Your task to perform on an android device: Clear the shopping cart on ebay.com. Image 0: 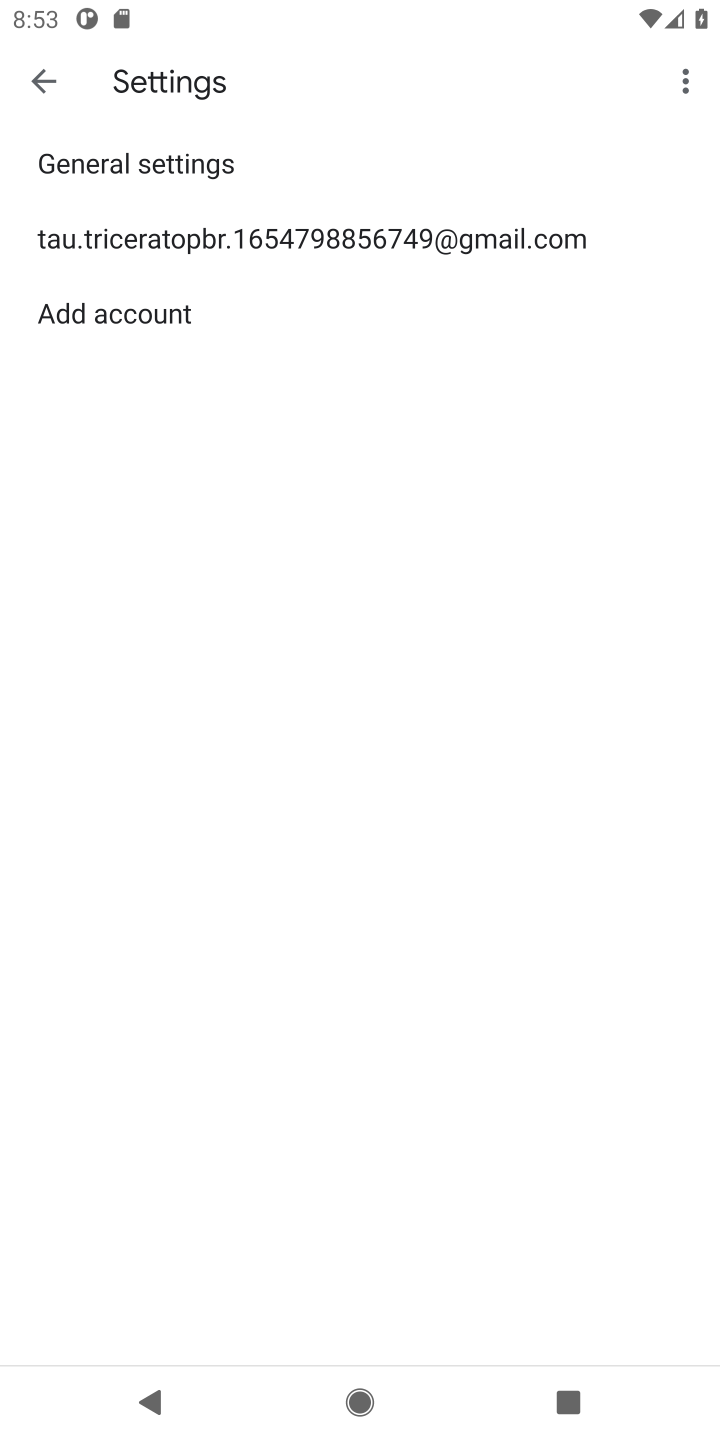
Step 0: press home button
Your task to perform on an android device: Clear the shopping cart on ebay.com. Image 1: 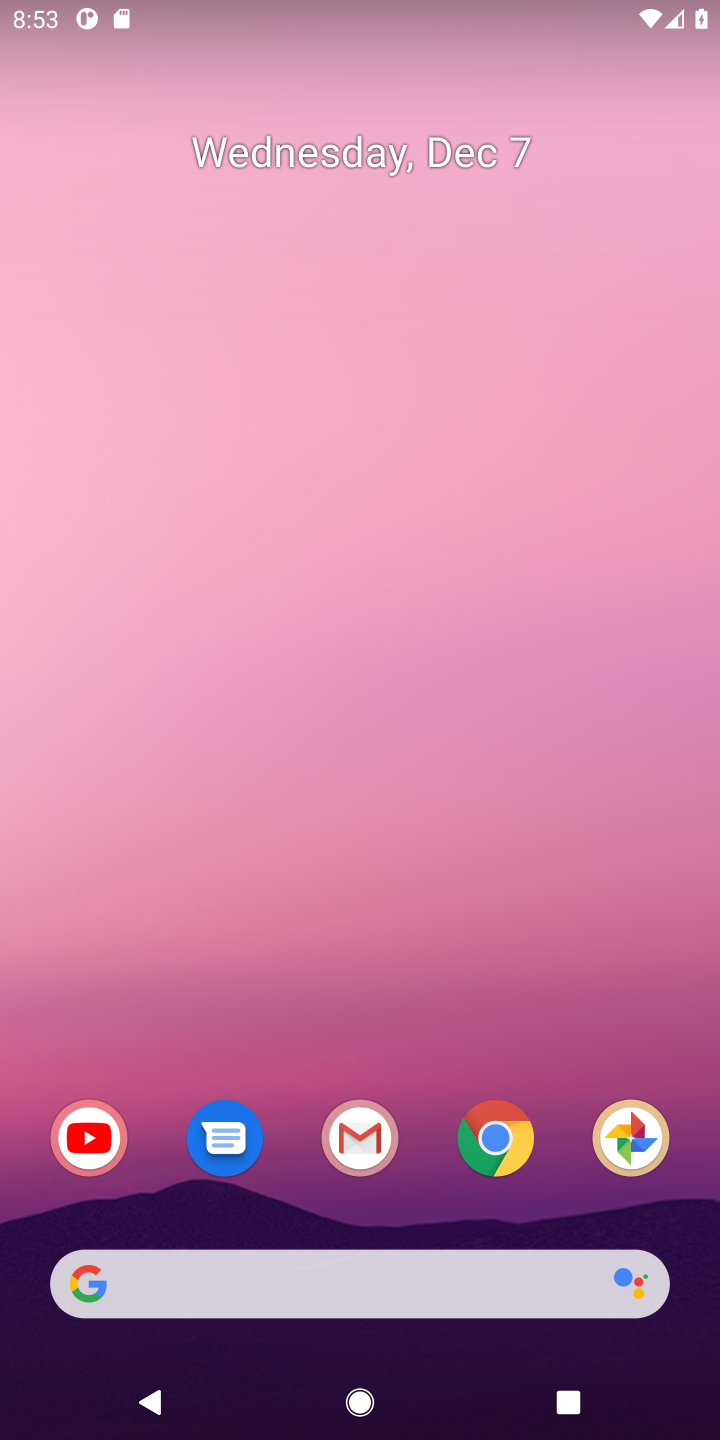
Step 1: click (166, 1285)
Your task to perform on an android device: Clear the shopping cart on ebay.com. Image 2: 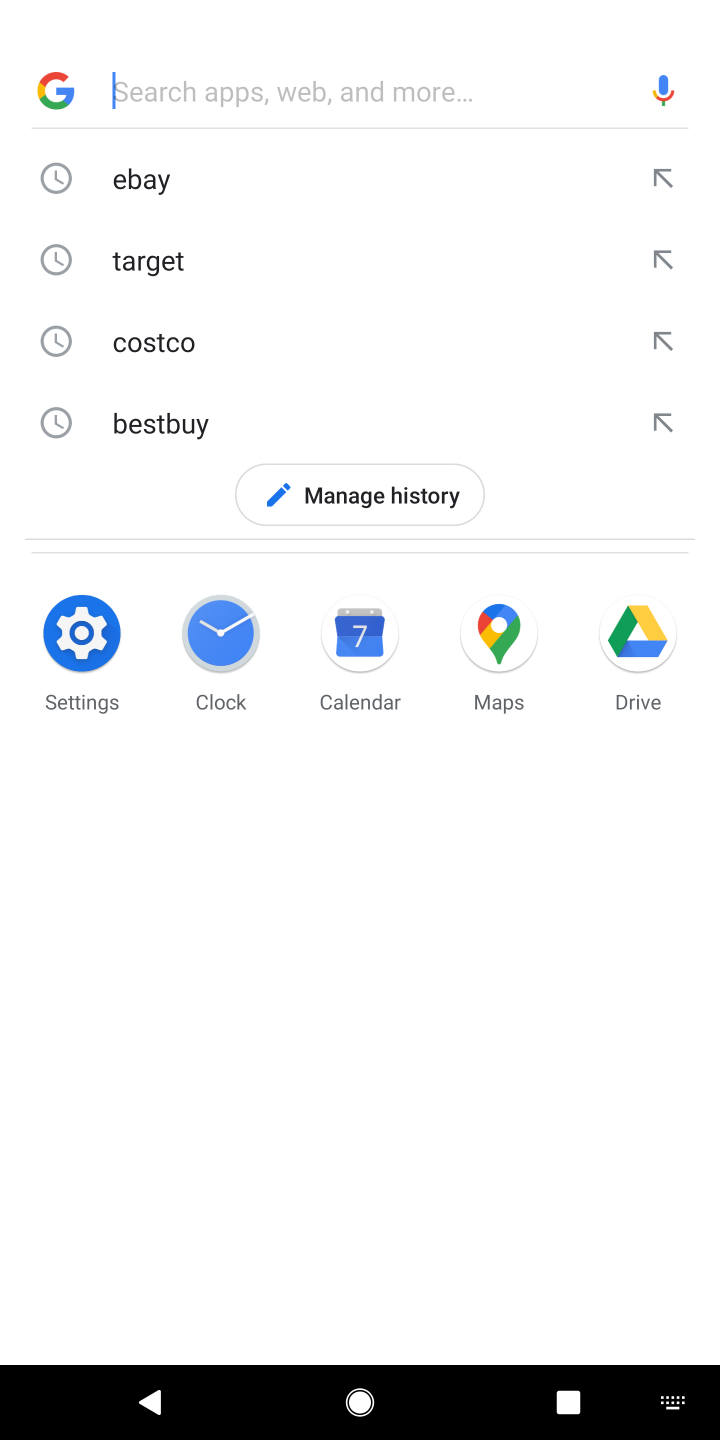
Step 2: press enter
Your task to perform on an android device: Clear the shopping cart on ebay.com. Image 3: 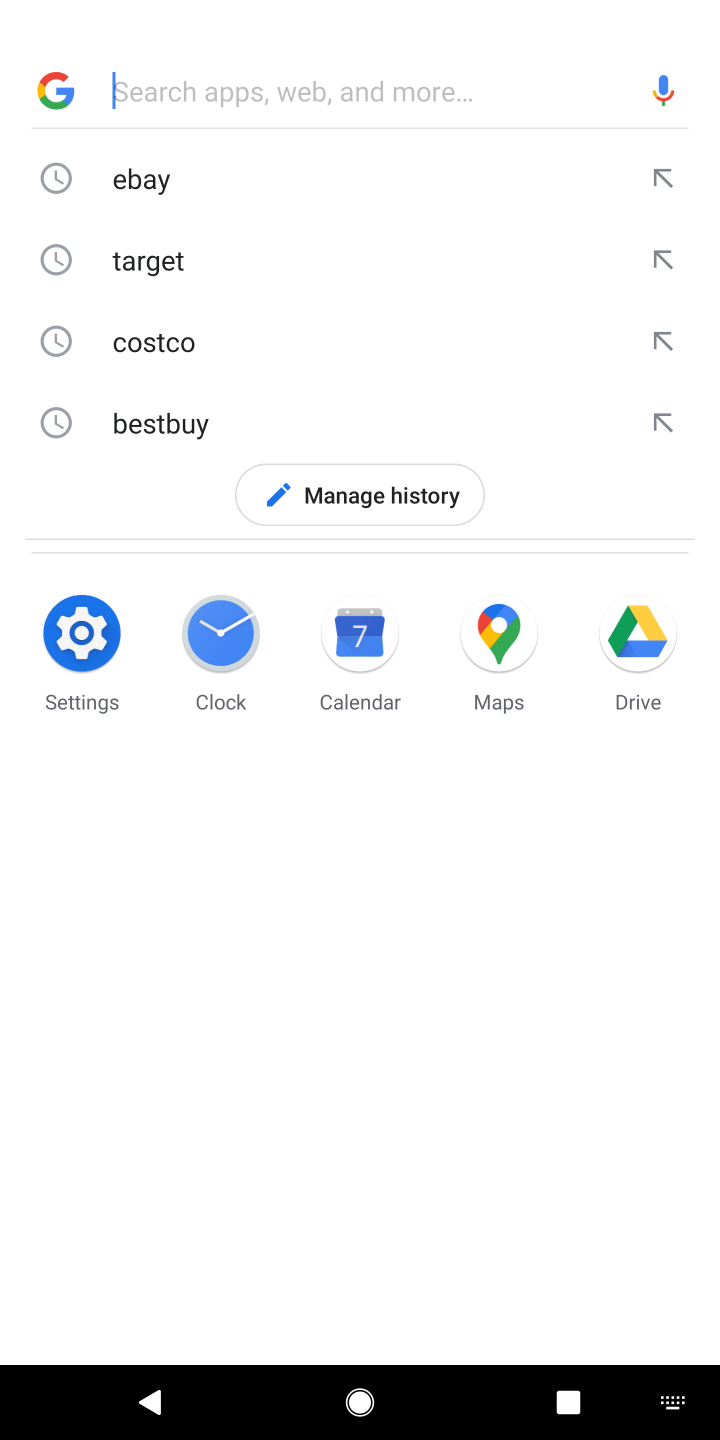
Step 3: type "ebay.com"
Your task to perform on an android device: Clear the shopping cart on ebay.com. Image 4: 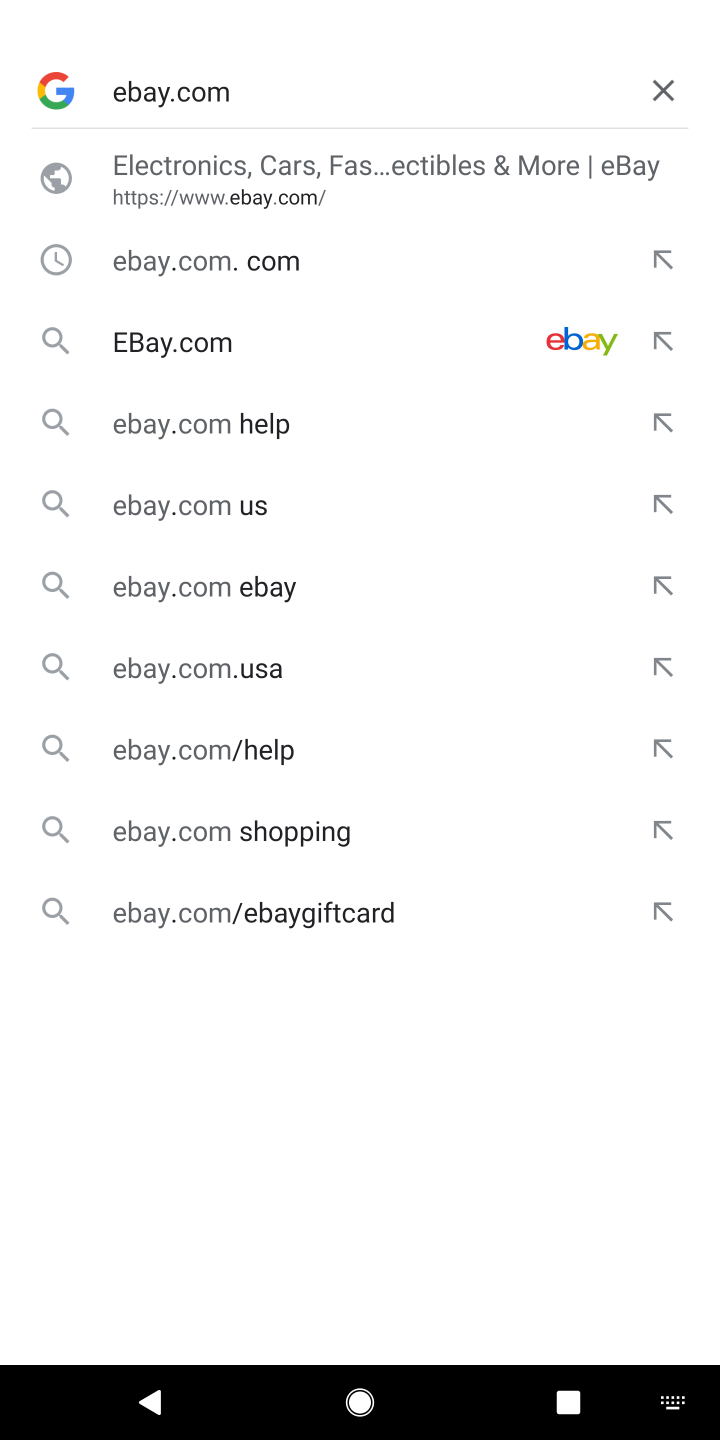
Step 4: press enter
Your task to perform on an android device: Clear the shopping cart on ebay.com. Image 5: 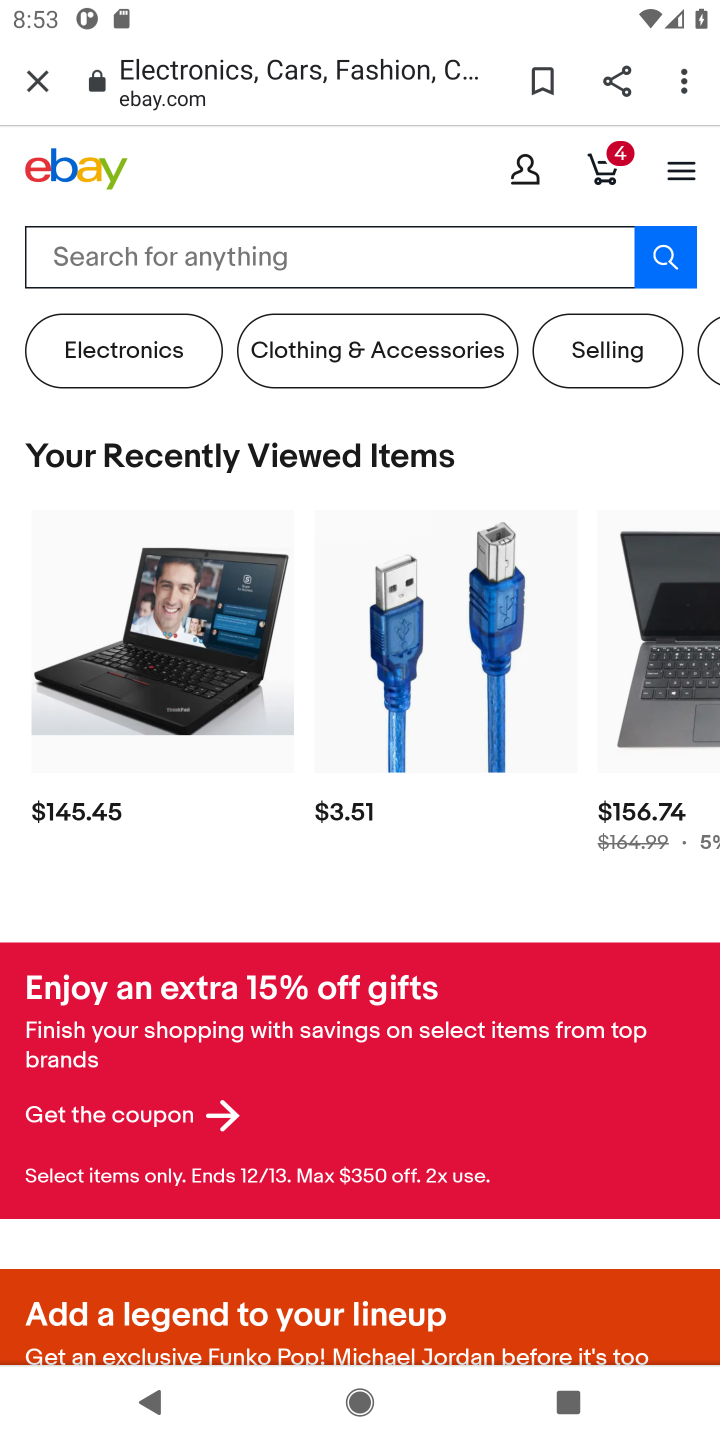
Step 5: click (607, 159)
Your task to perform on an android device: Clear the shopping cart on ebay.com. Image 6: 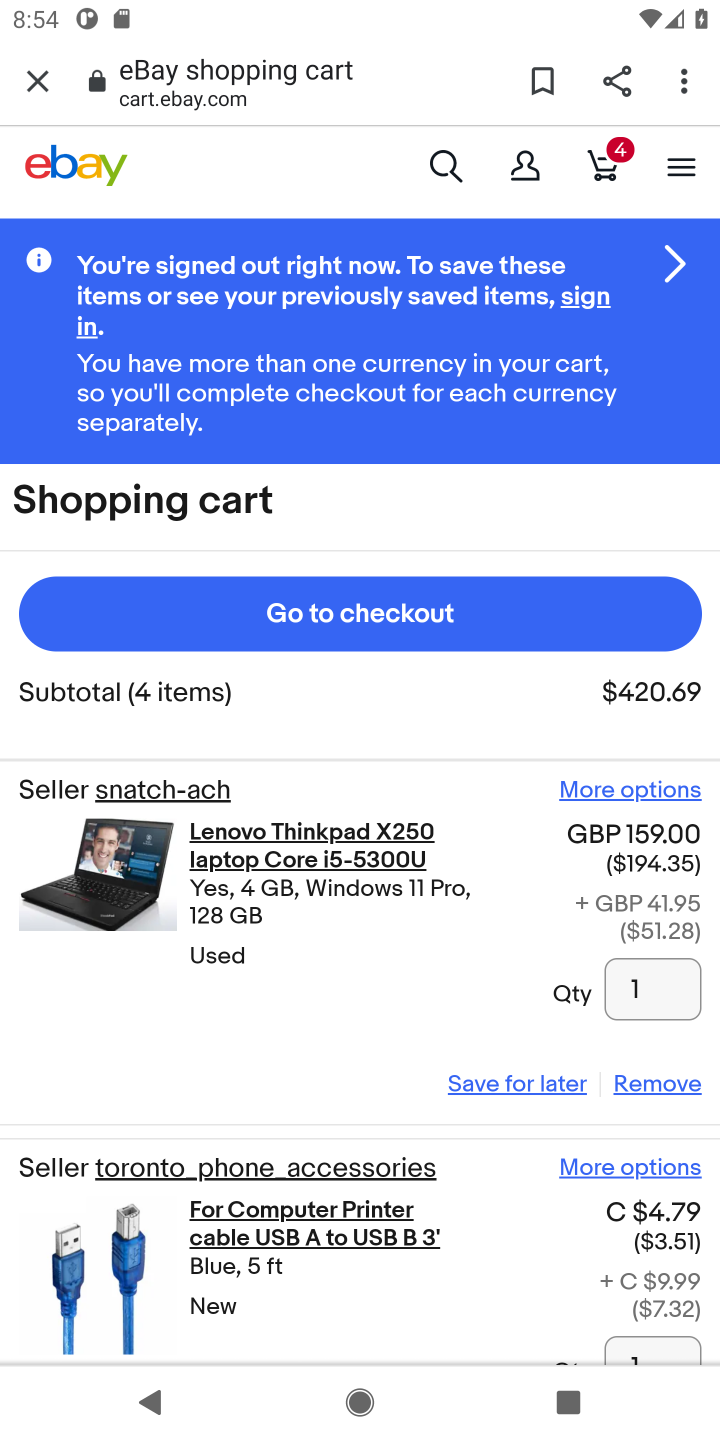
Step 6: click (671, 1079)
Your task to perform on an android device: Clear the shopping cart on ebay.com. Image 7: 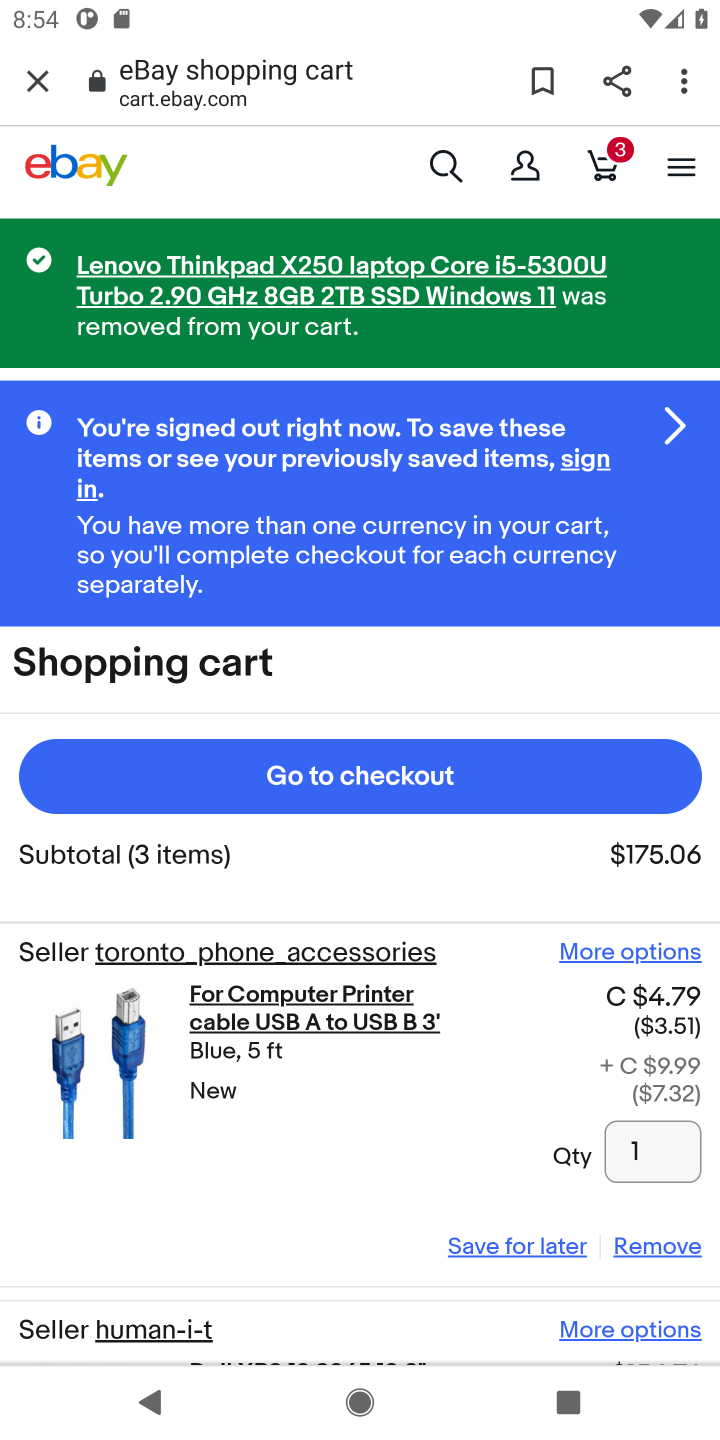
Step 7: click (644, 1247)
Your task to perform on an android device: Clear the shopping cart on ebay.com. Image 8: 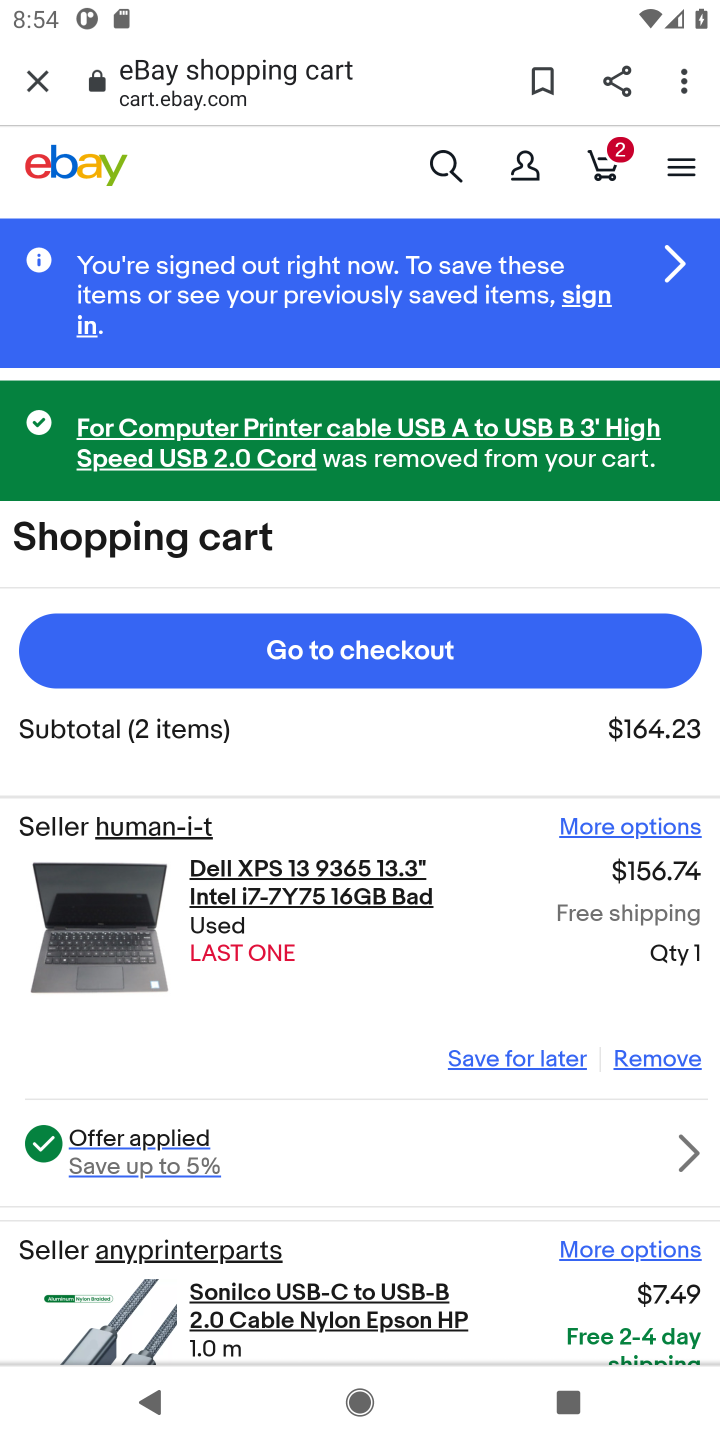
Step 8: click (661, 1065)
Your task to perform on an android device: Clear the shopping cart on ebay.com. Image 9: 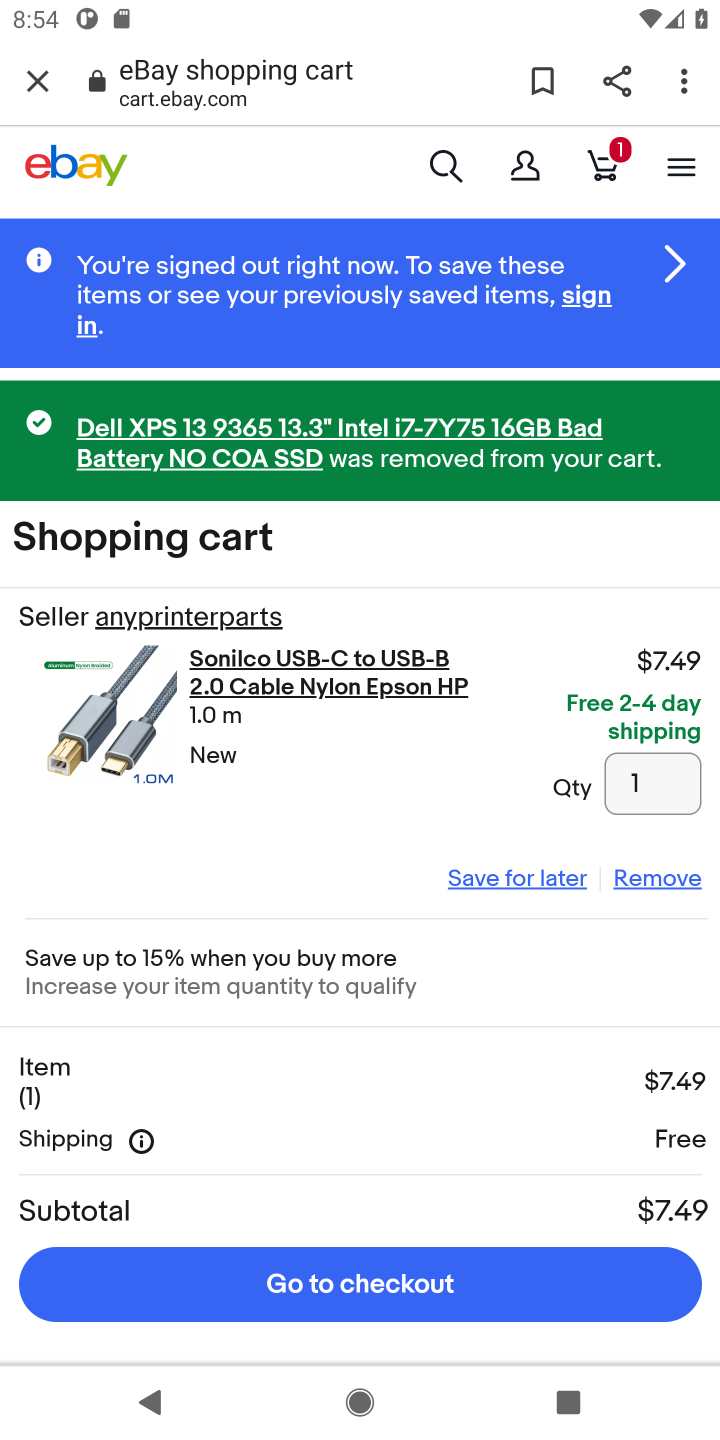
Step 9: click (661, 880)
Your task to perform on an android device: Clear the shopping cart on ebay.com. Image 10: 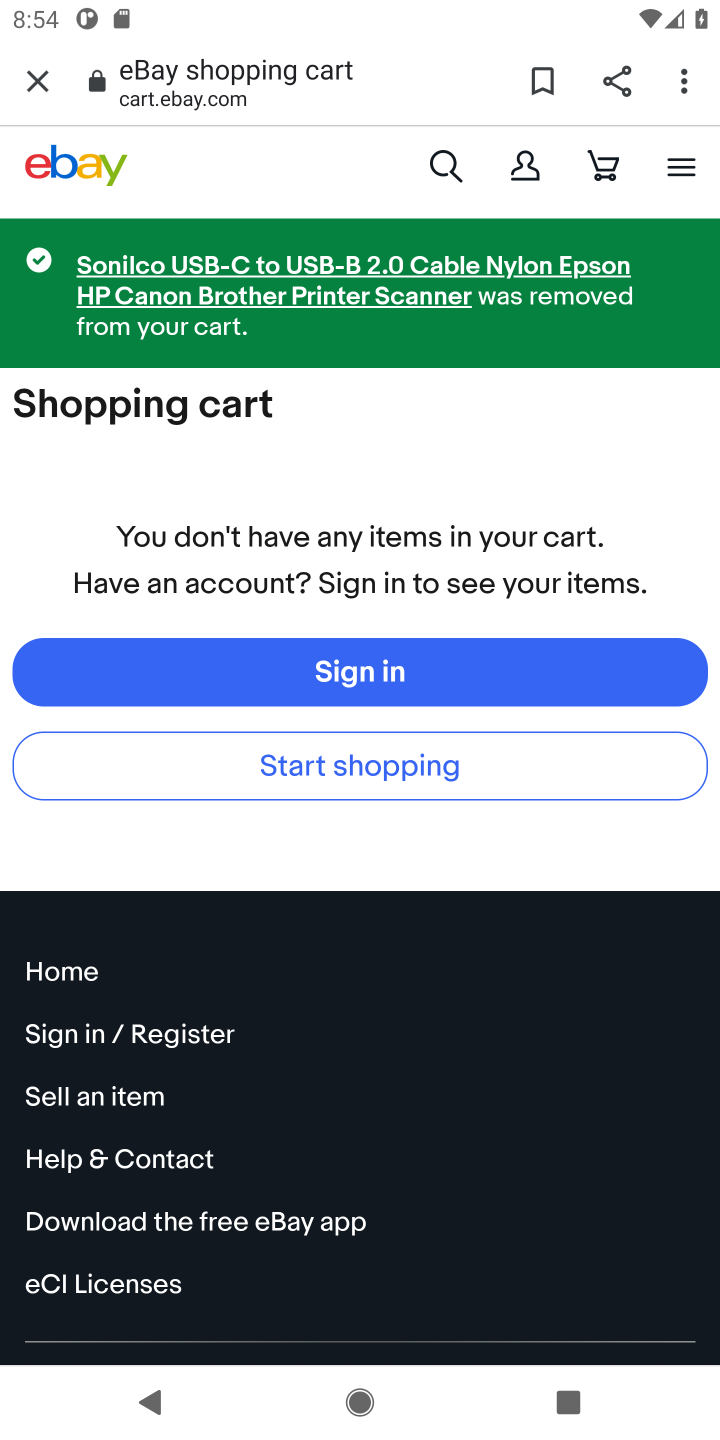
Step 10: task complete